Your task to perform on an android device: Open a new window in the chrome app Image 0: 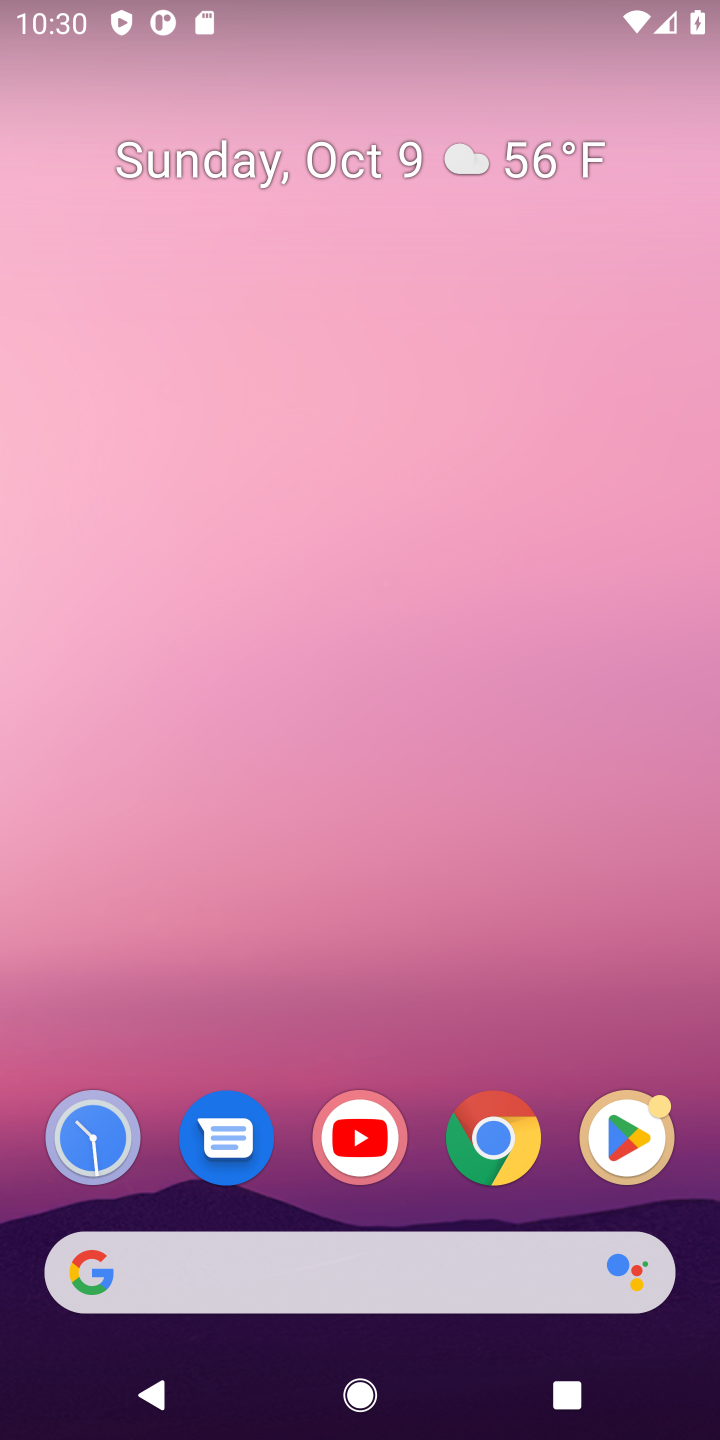
Step 0: drag from (496, 981) to (492, 106)
Your task to perform on an android device: Open a new window in the chrome app Image 1: 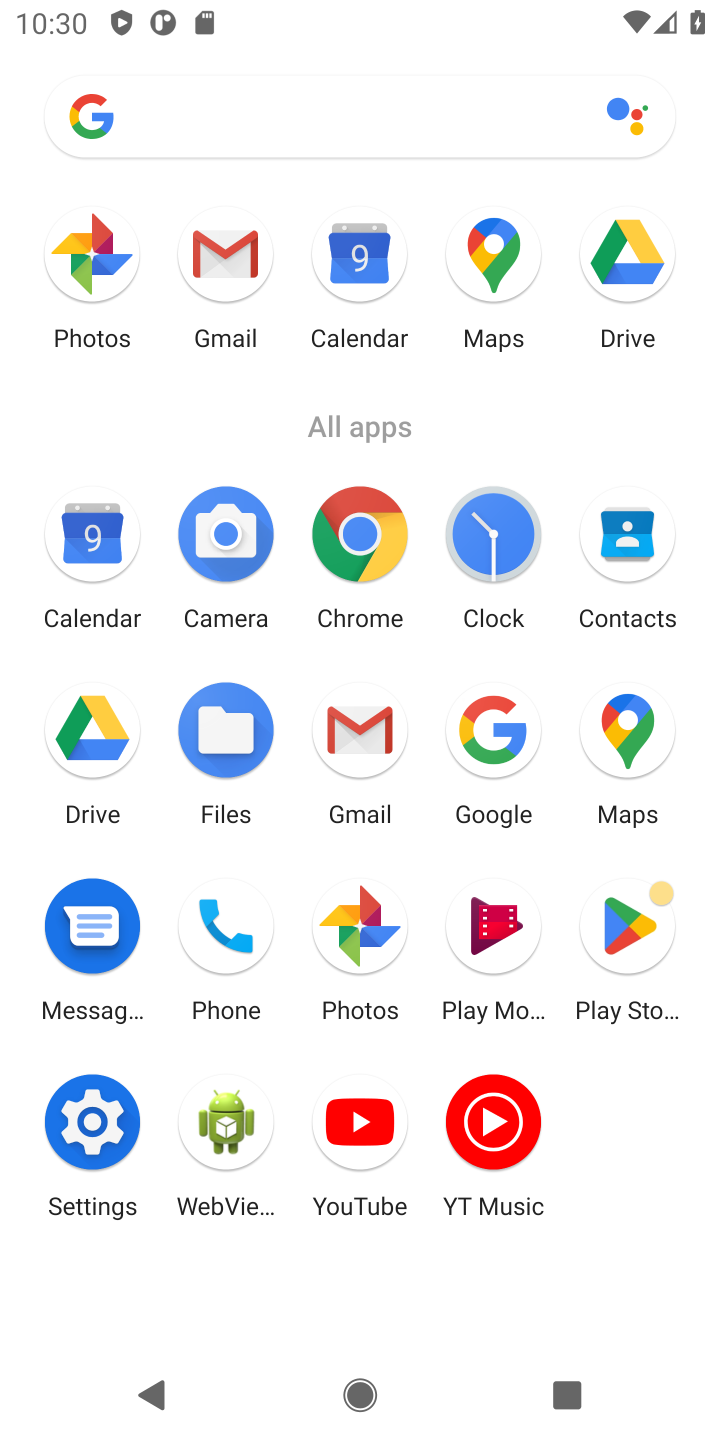
Step 1: click (354, 522)
Your task to perform on an android device: Open a new window in the chrome app Image 2: 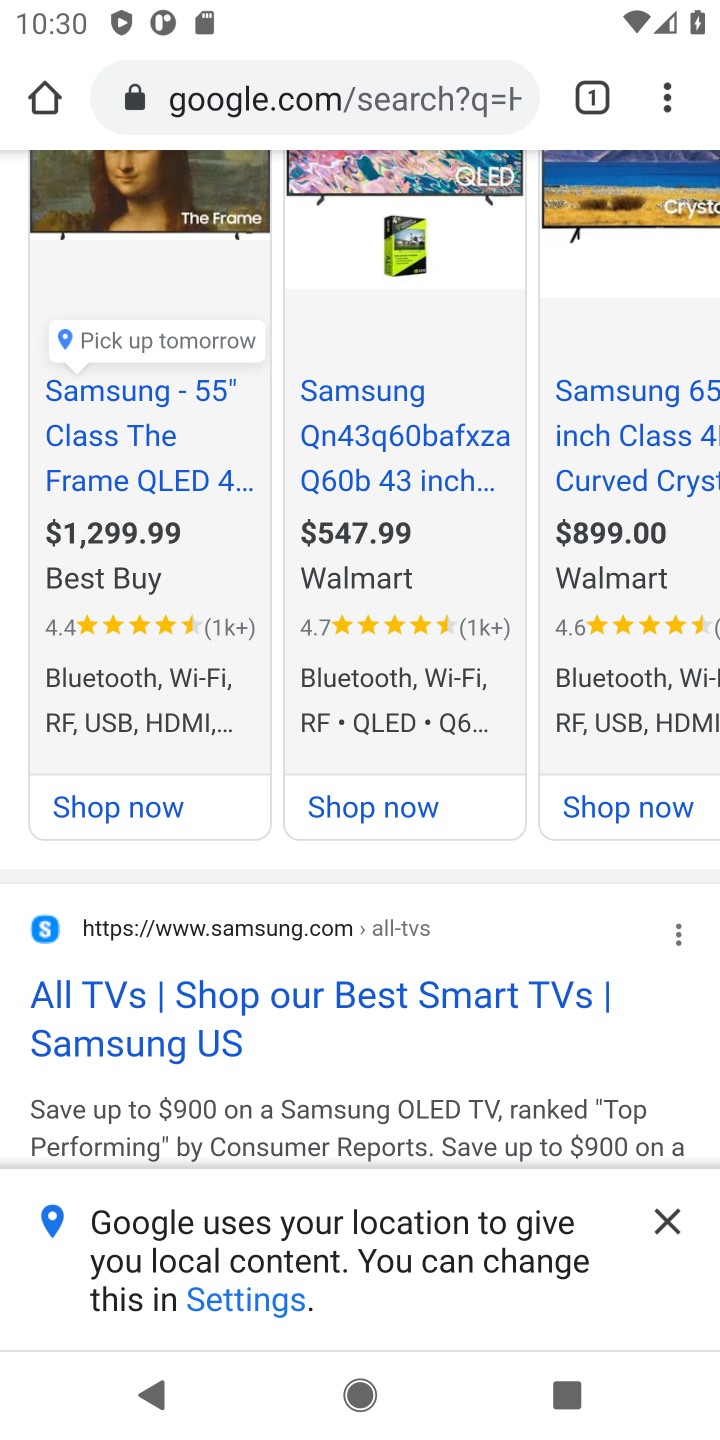
Step 2: click (308, 103)
Your task to perform on an android device: Open a new window in the chrome app Image 3: 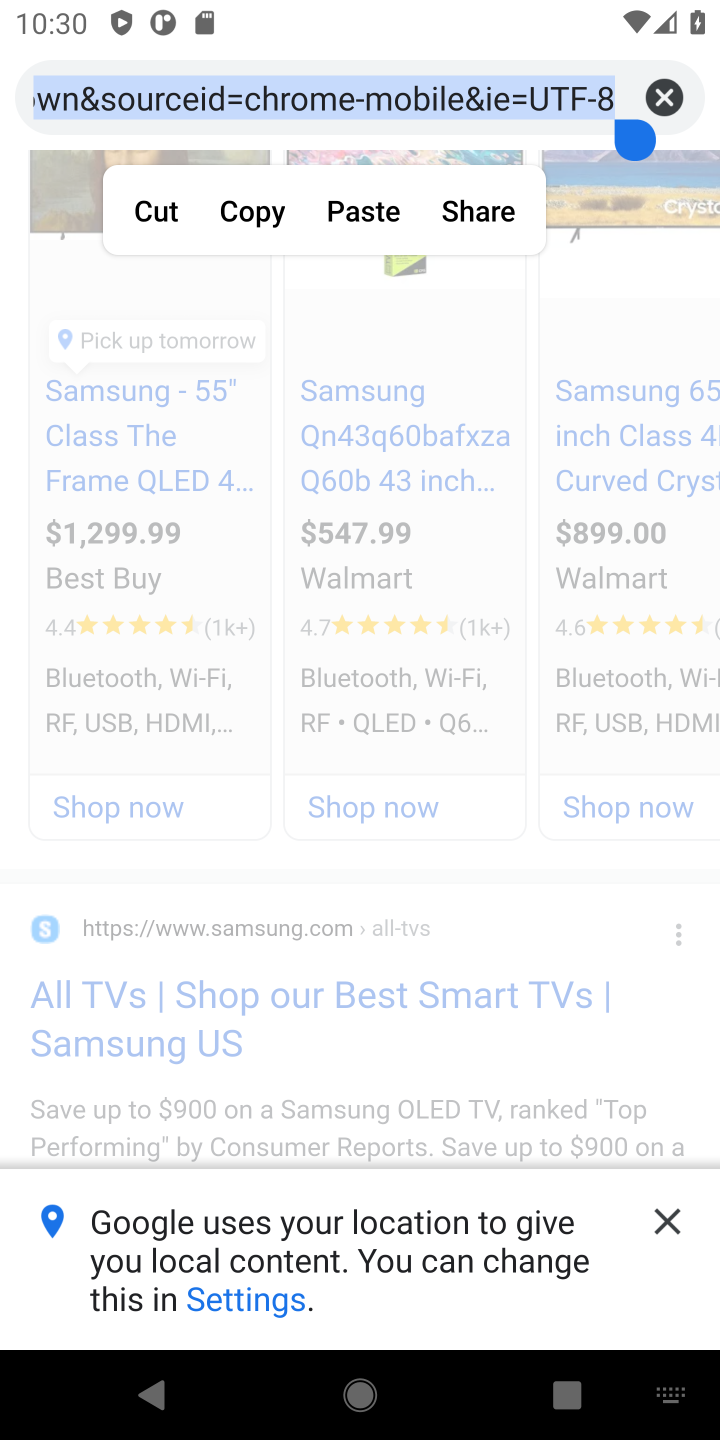
Step 3: click (662, 81)
Your task to perform on an android device: Open a new window in the chrome app Image 4: 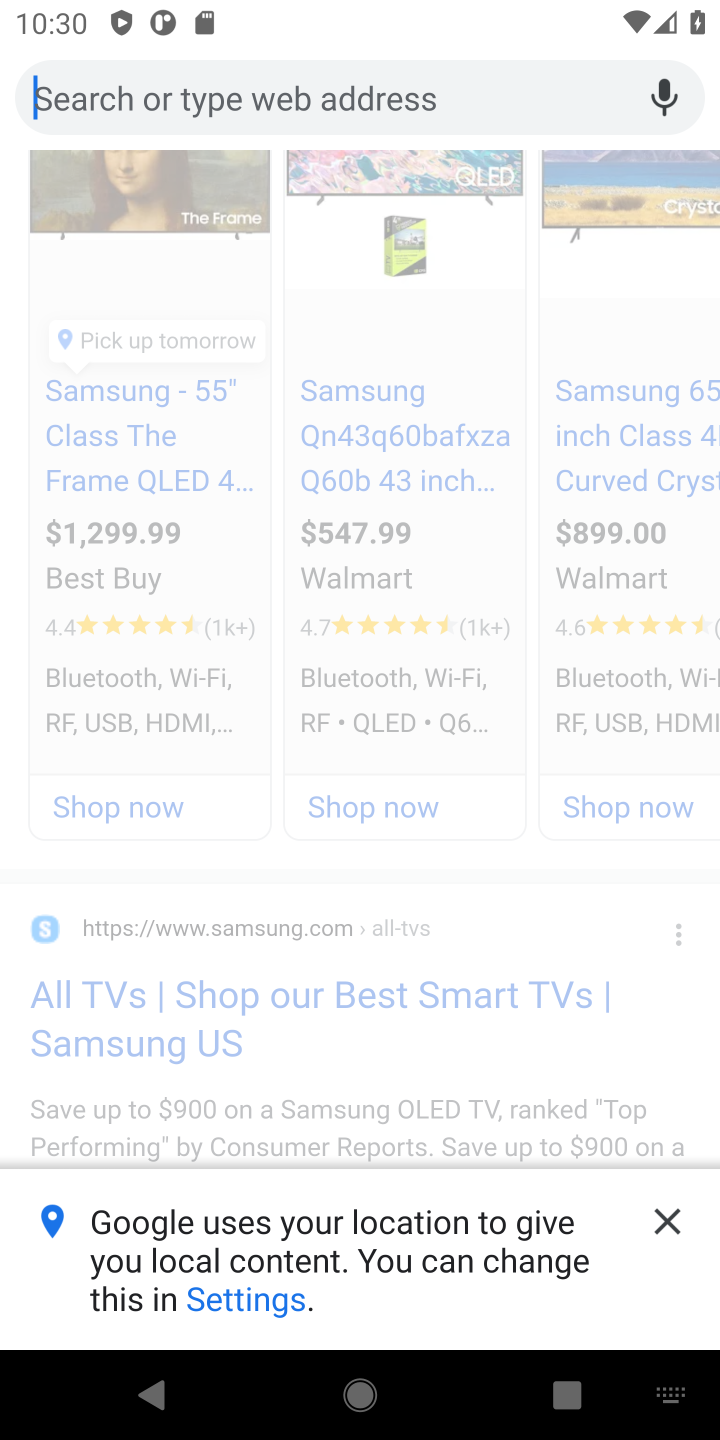
Step 4: click (552, 88)
Your task to perform on an android device: Open a new window in the chrome app Image 5: 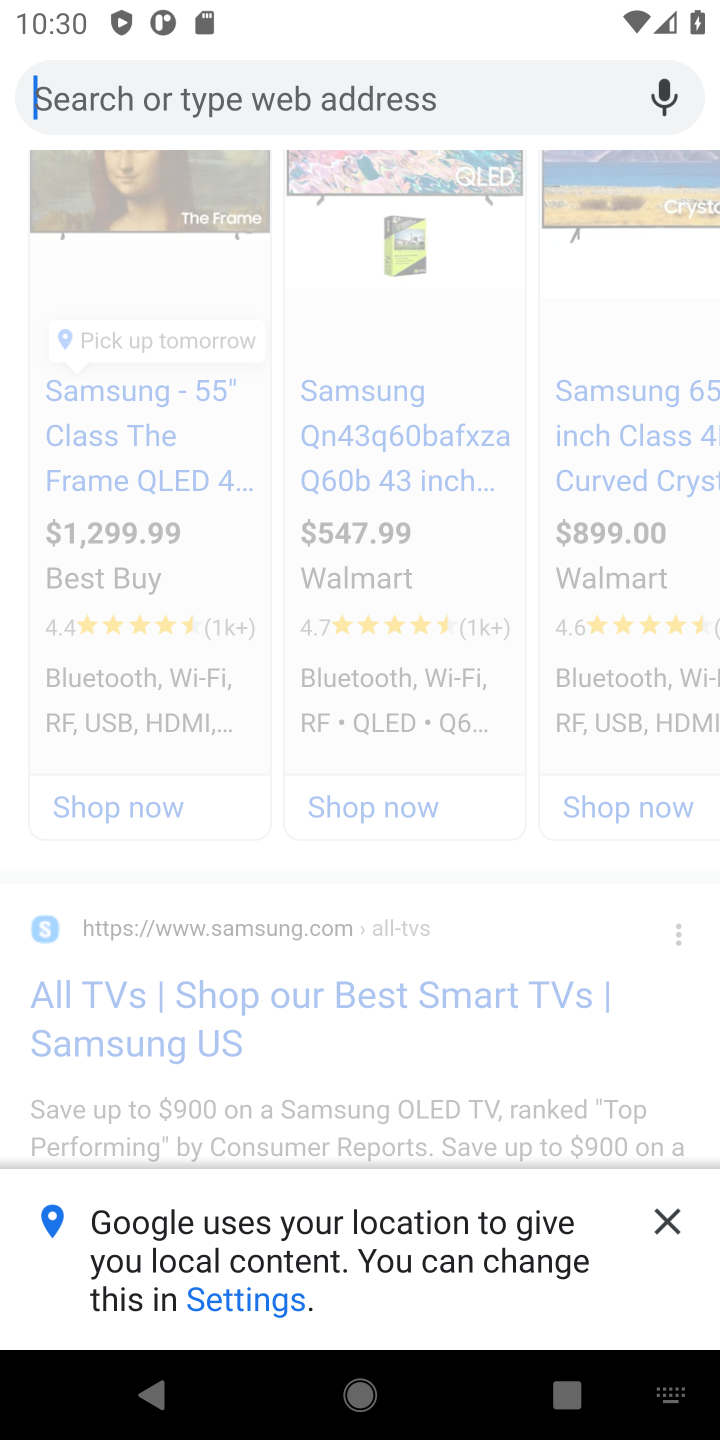
Step 5: task complete